Your task to perform on an android device: set default search engine in the chrome app Image 0: 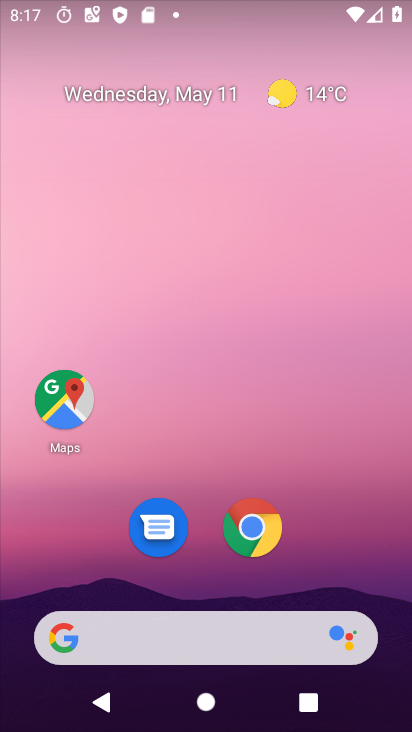
Step 0: click (248, 535)
Your task to perform on an android device: set default search engine in the chrome app Image 1: 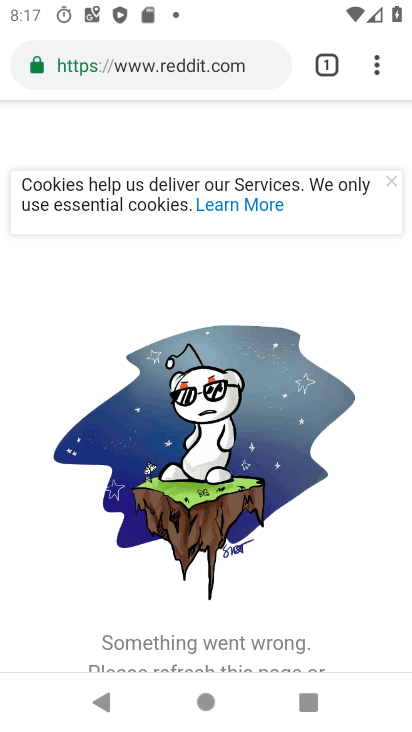
Step 1: click (378, 60)
Your task to perform on an android device: set default search engine in the chrome app Image 2: 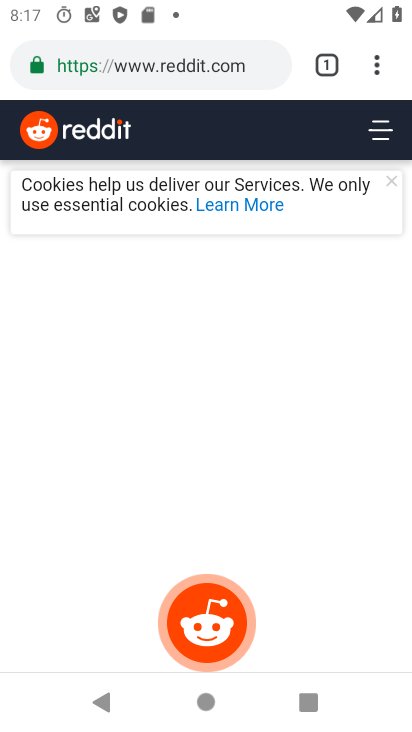
Step 2: click (380, 78)
Your task to perform on an android device: set default search engine in the chrome app Image 3: 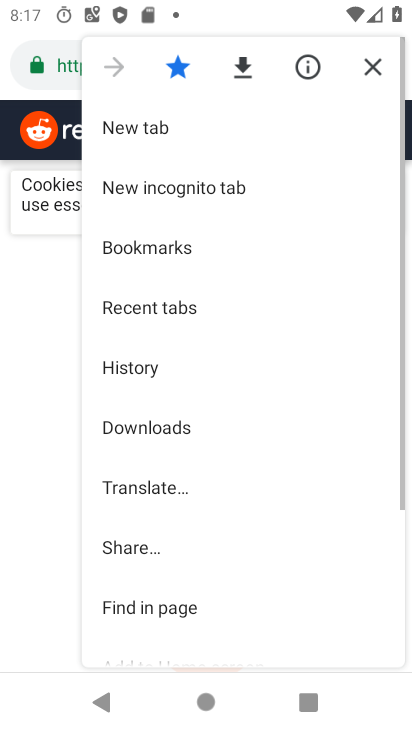
Step 3: drag from (210, 512) to (219, 123)
Your task to perform on an android device: set default search engine in the chrome app Image 4: 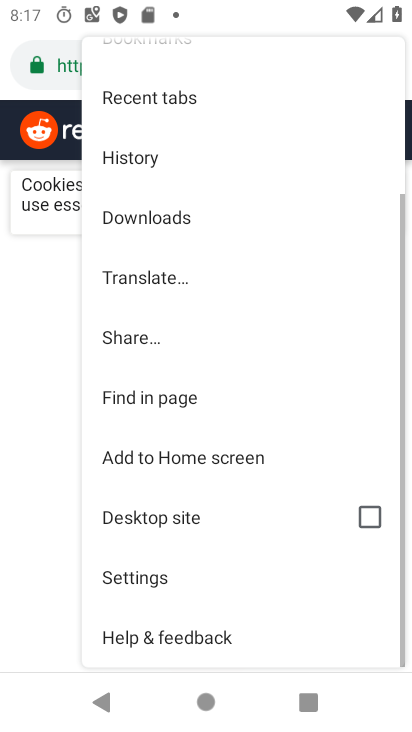
Step 4: click (177, 566)
Your task to perform on an android device: set default search engine in the chrome app Image 5: 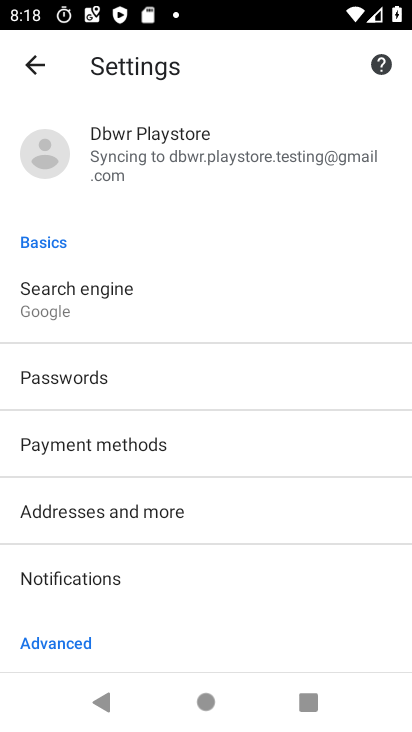
Step 5: click (220, 312)
Your task to perform on an android device: set default search engine in the chrome app Image 6: 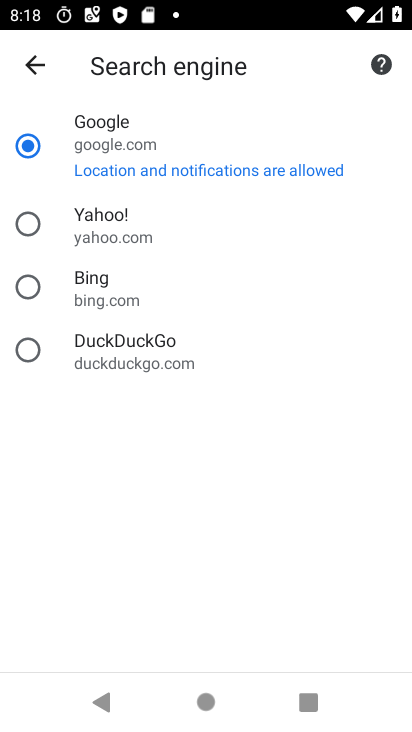
Step 6: task complete